Your task to perform on an android device: Go to Google Image 0: 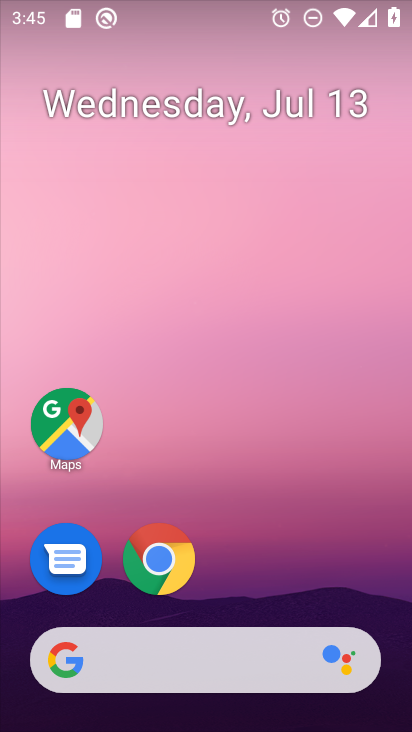
Step 0: drag from (348, 539) to (336, 193)
Your task to perform on an android device: Go to Google Image 1: 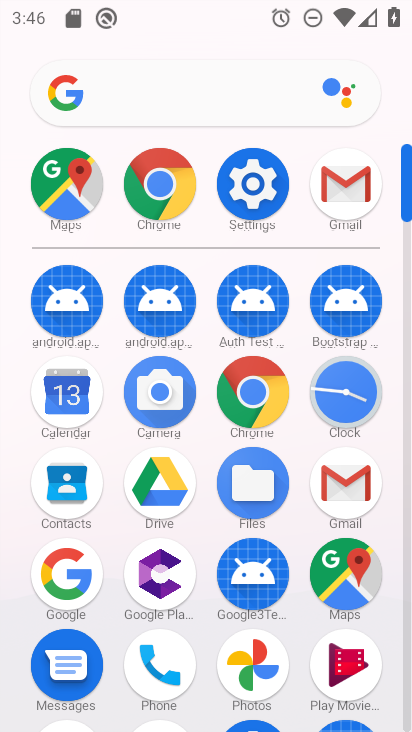
Step 1: click (59, 577)
Your task to perform on an android device: Go to Google Image 2: 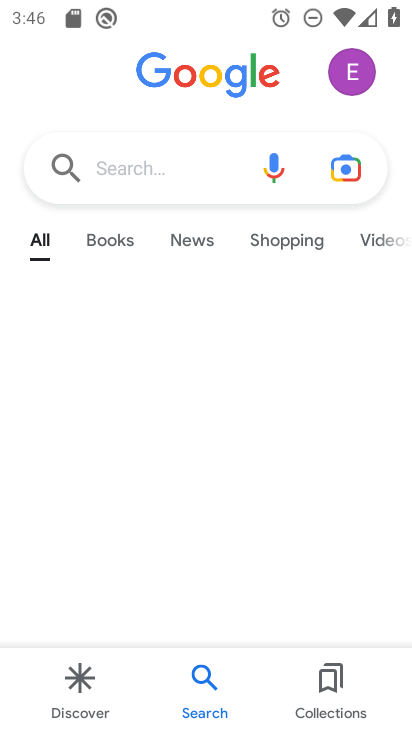
Step 2: task complete